Your task to perform on an android device: What is the news today? Image 0: 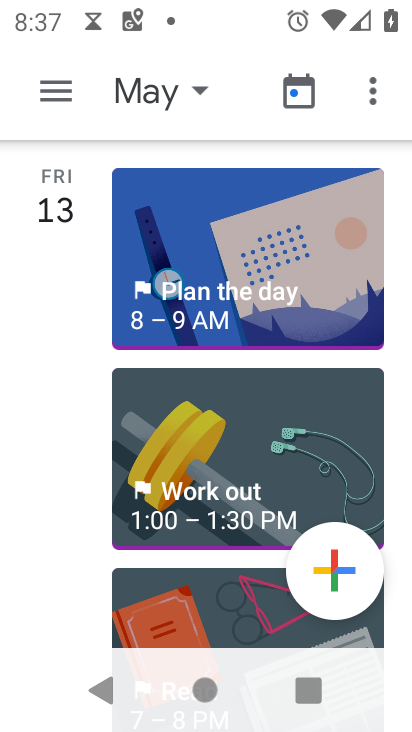
Step 0: press home button
Your task to perform on an android device: What is the news today? Image 1: 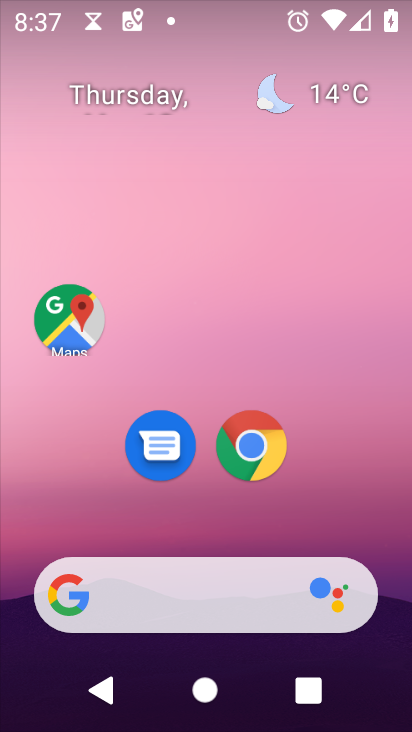
Step 1: task complete